Your task to perform on an android device: What's the weather going to be tomorrow? Image 0: 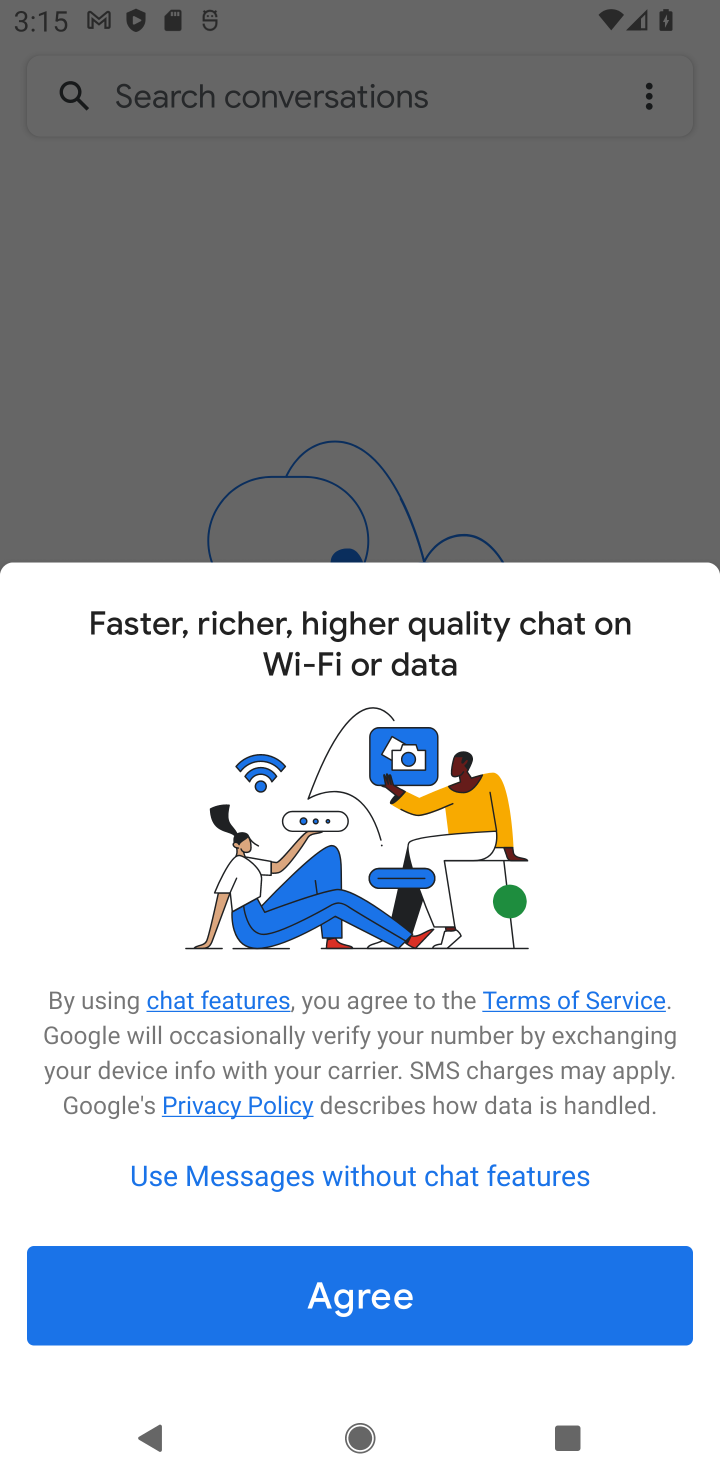
Step 0: task complete